Your task to perform on an android device: Open location settings Image 0: 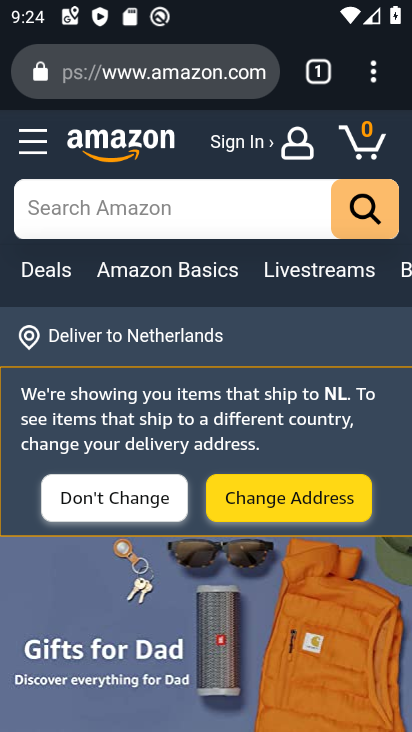
Step 0: press home button
Your task to perform on an android device: Open location settings Image 1: 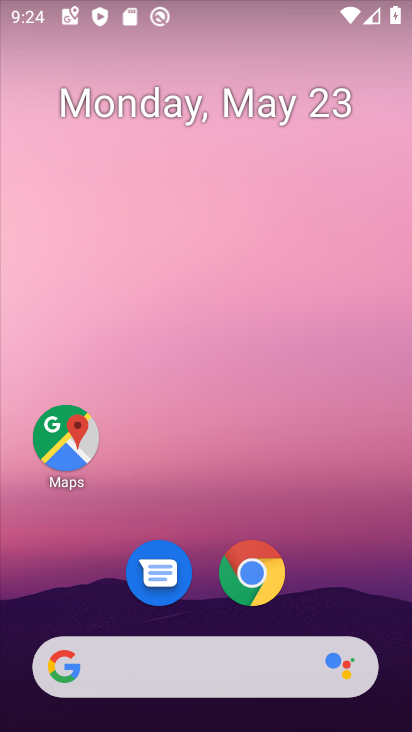
Step 1: drag from (373, 601) to (381, 242)
Your task to perform on an android device: Open location settings Image 2: 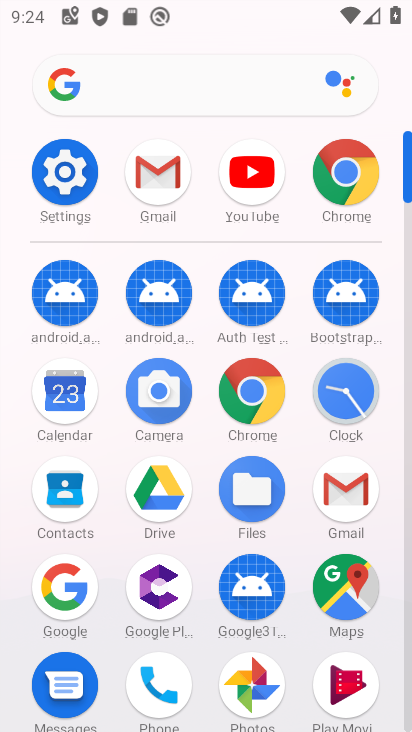
Step 2: click (78, 172)
Your task to perform on an android device: Open location settings Image 3: 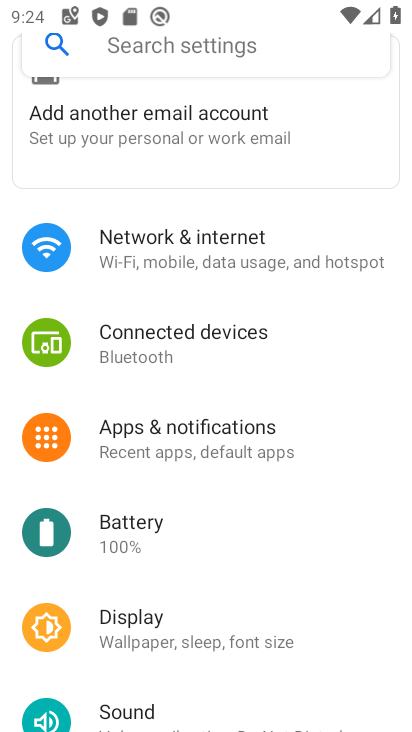
Step 3: drag from (355, 513) to (361, 428)
Your task to perform on an android device: Open location settings Image 4: 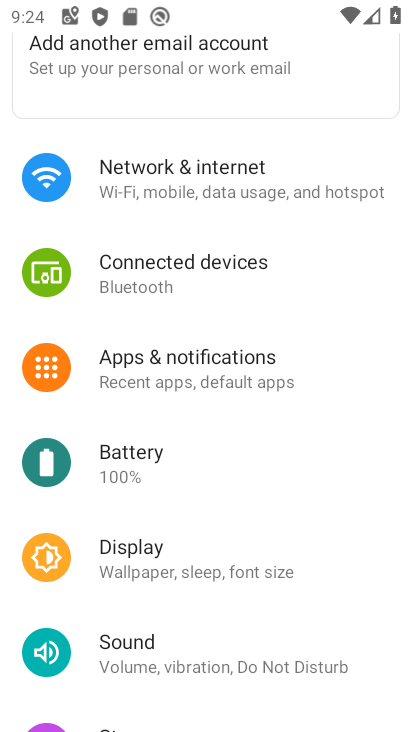
Step 4: drag from (370, 577) to (370, 485)
Your task to perform on an android device: Open location settings Image 5: 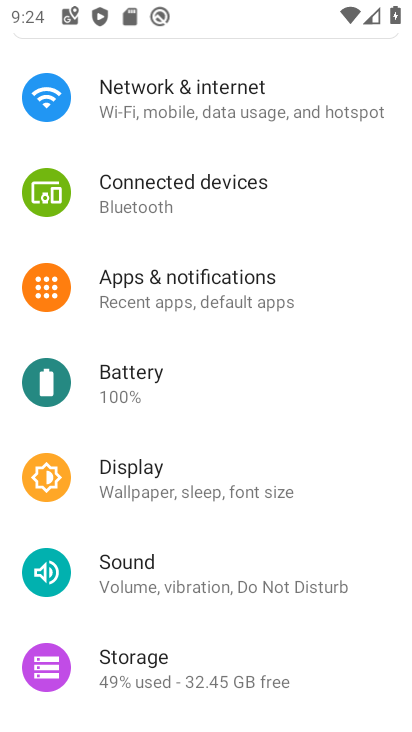
Step 5: drag from (377, 604) to (387, 513)
Your task to perform on an android device: Open location settings Image 6: 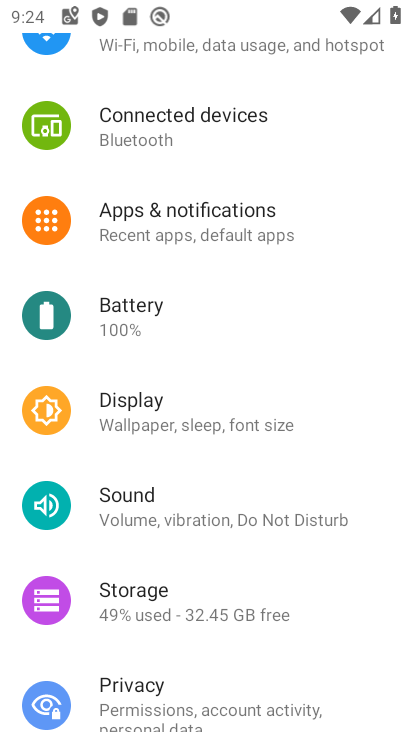
Step 6: drag from (365, 636) to (366, 530)
Your task to perform on an android device: Open location settings Image 7: 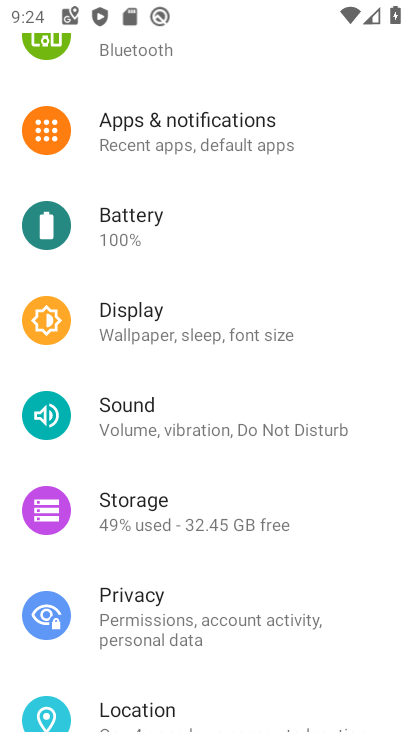
Step 7: drag from (356, 624) to (352, 508)
Your task to perform on an android device: Open location settings Image 8: 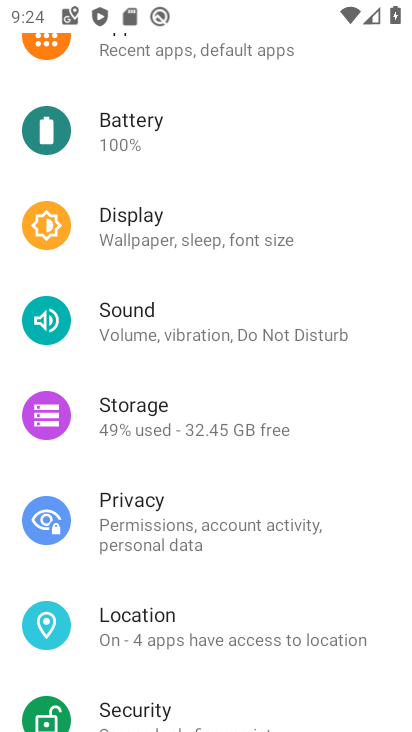
Step 8: drag from (356, 611) to (363, 511)
Your task to perform on an android device: Open location settings Image 9: 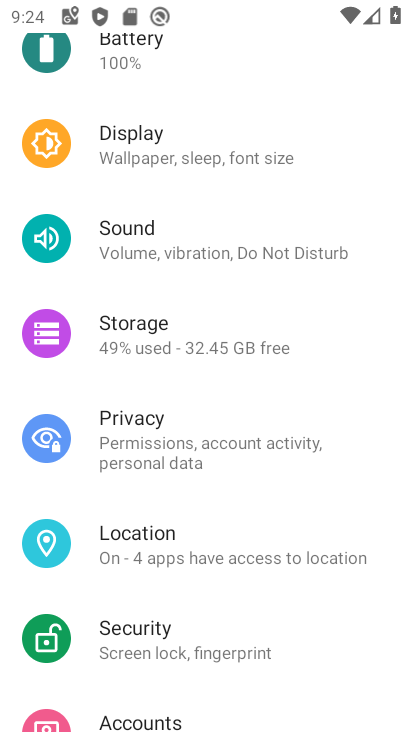
Step 9: drag from (352, 642) to (361, 544)
Your task to perform on an android device: Open location settings Image 10: 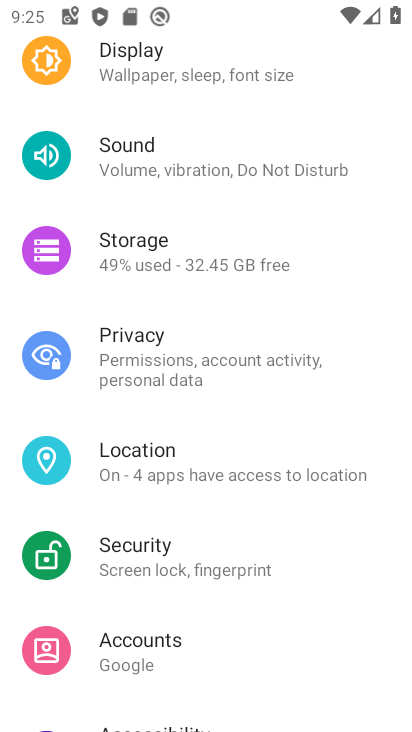
Step 10: click (330, 474)
Your task to perform on an android device: Open location settings Image 11: 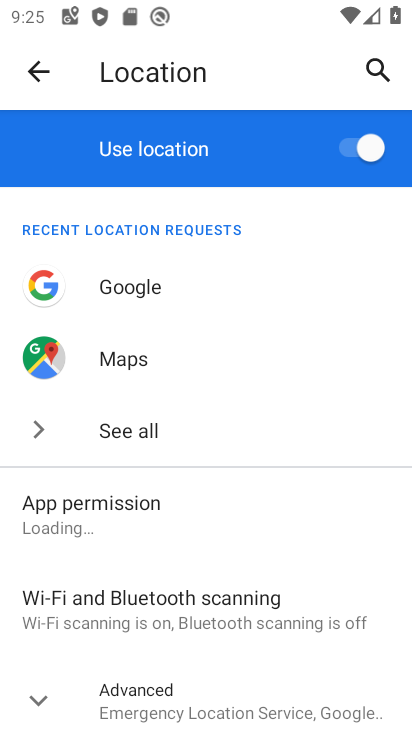
Step 11: task complete